Your task to perform on an android device: turn on data saver in the chrome app Image 0: 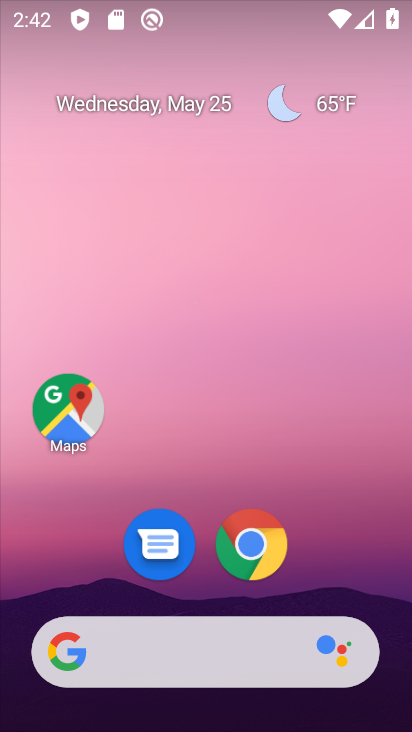
Step 0: click (272, 557)
Your task to perform on an android device: turn on data saver in the chrome app Image 1: 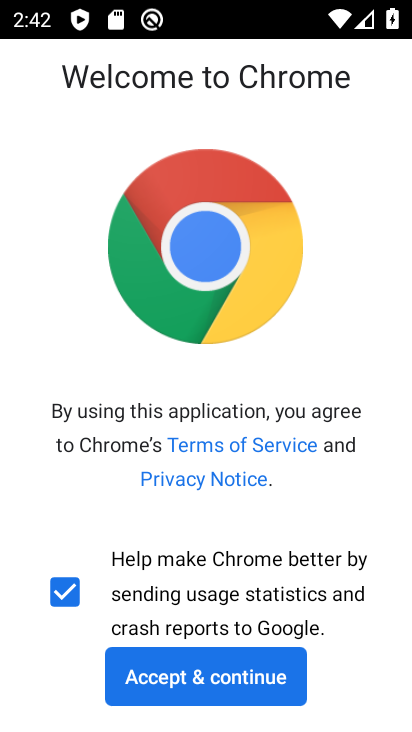
Step 1: click (249, 674)
Your task to perform on an android device: turn on data saver in the chrome app Image 2: 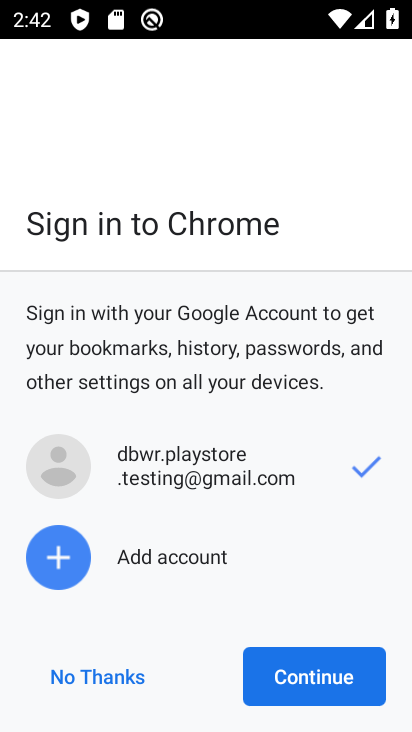
Step 2: click (308, 675)
Your task to perform on an android device: turn on data saver in the chrome app Image 3: 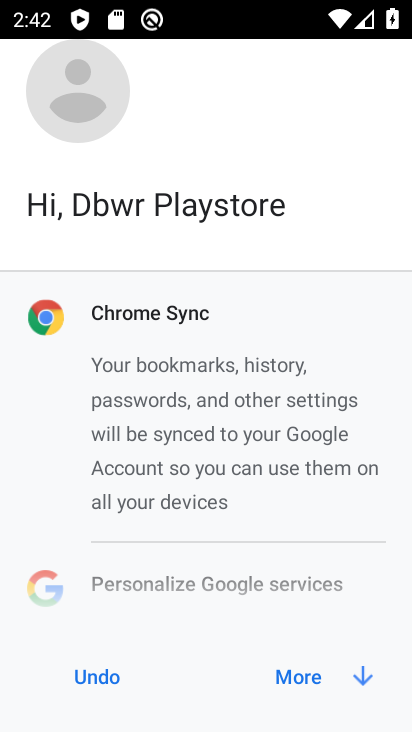
Step 3: click (308, 675)
Your task to perform on an android device: turn on data saver in the chrome app Image 4: 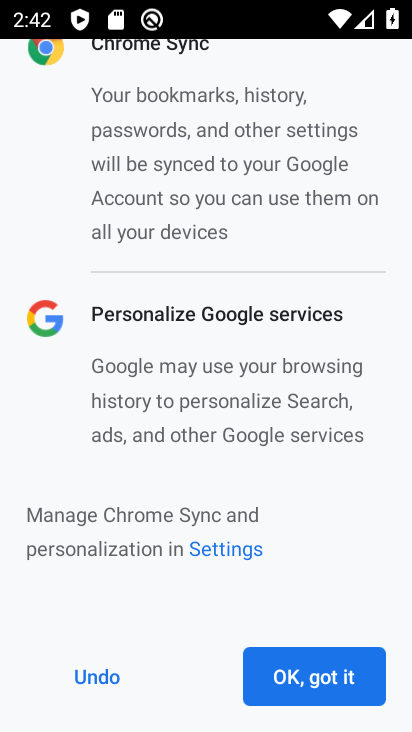
Step 4: click (308, 675)
Your task to perform on an android device: turn on data saver in the chrome app Image 5: 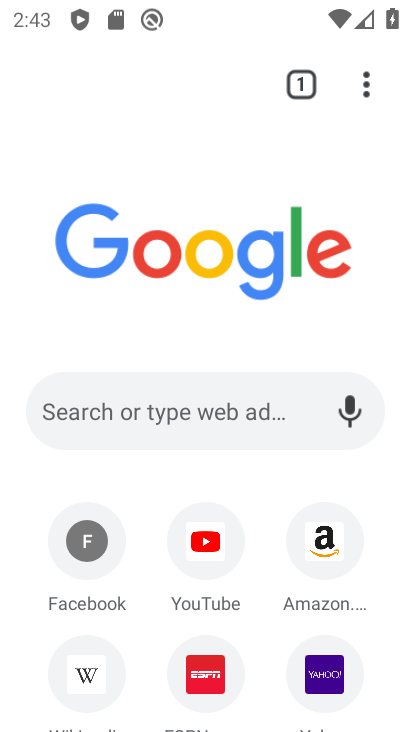
Step 5: click (366, 81)
Your task to perform on an android device: turn on data saver in the chrome app Image 6: 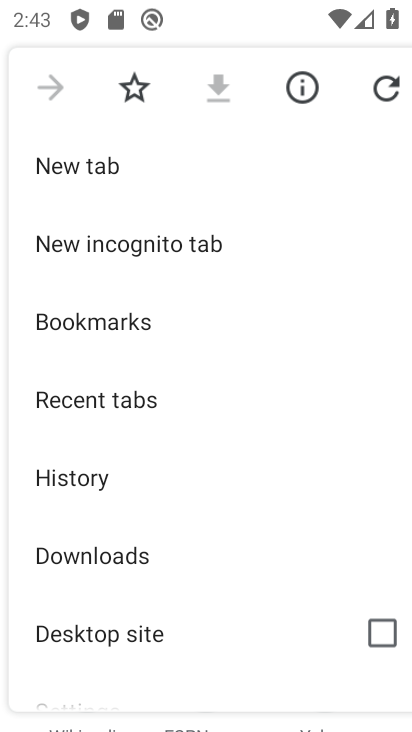
Step 6: drag from (201, 640) to (168, 242)
Your task to perform on an android device: turn on data saver in the chrome app Image 7: 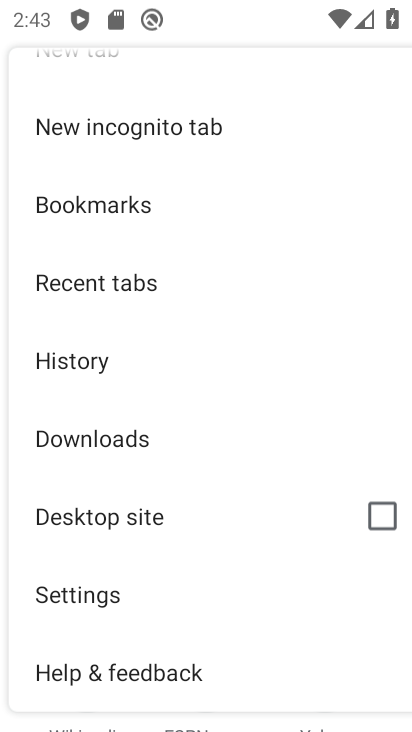
Step 7: click (135, 594)
Your task to perform on an android device: turn on data saver in the chrome app Image 8: 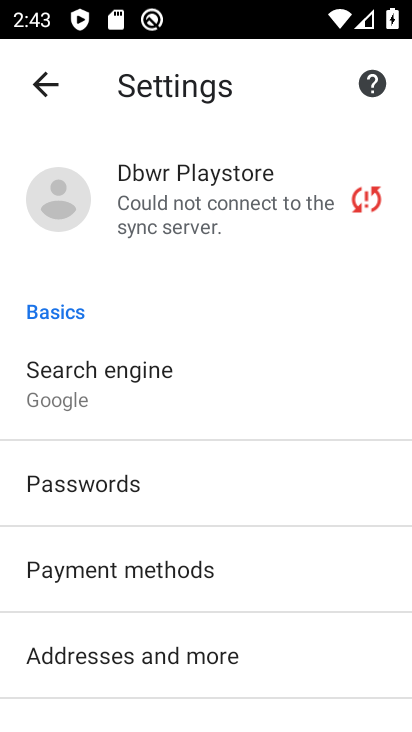
Step 8: drag from (179, 679) to (148, 263)
Your task to perform on an android device: turn on data saver in the chrome app Image 9: 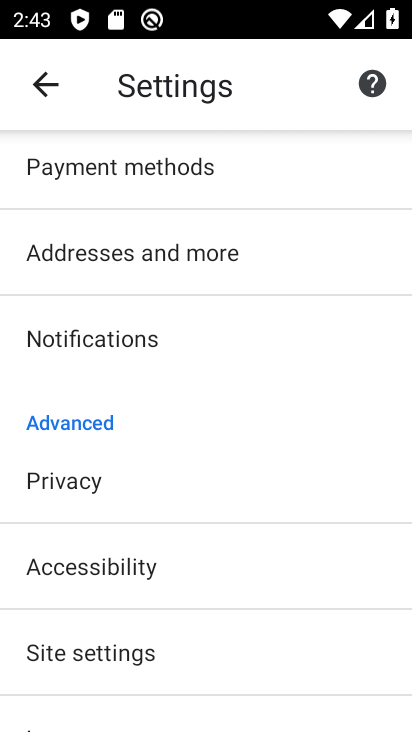
Step 9: drag from (186, 670) to (150, 263)
Your task to perform on an android device: turn on data saver in the chrome app Image 10: 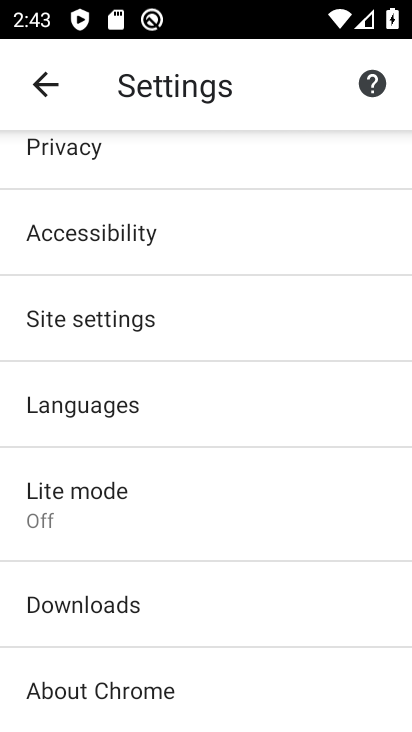
Step 10: click (169, 514)
Your task to perform on an android device: turn on data saver in the chrome app Image 11: 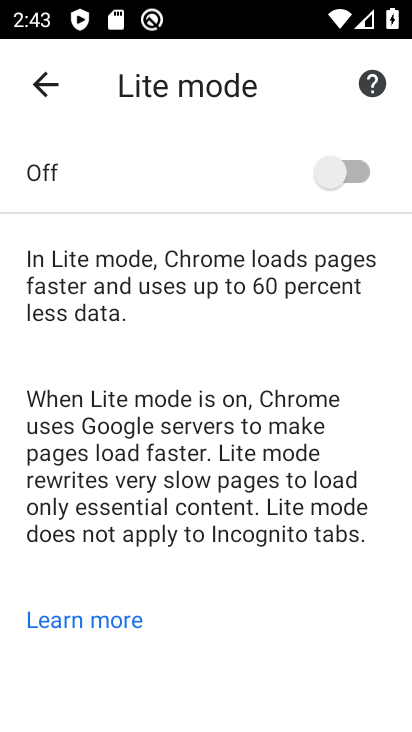
Step 11: click (346, 180)
Your task to perform on an android device: turn on data saver in the chrome app Image 12: 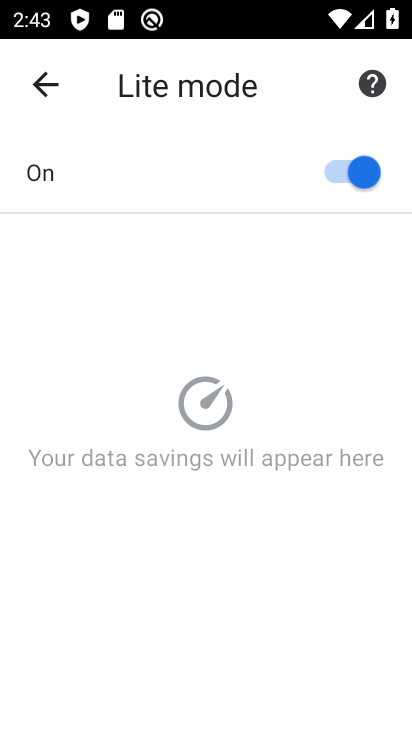
Step 12: task complete